Your task to perform on an android device: Go to settings Image 0: 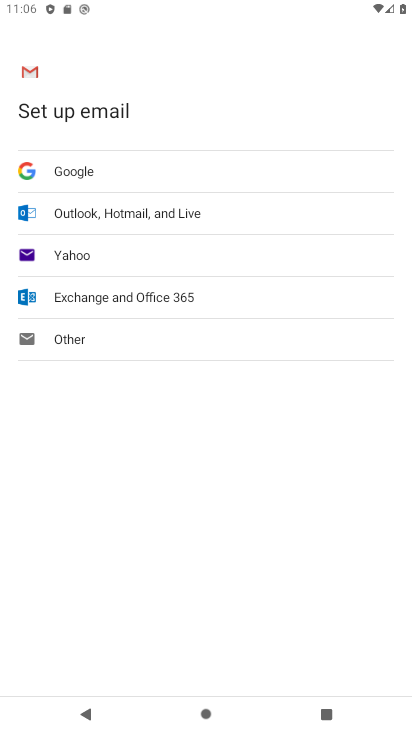
Step 0: press home button
Your task to perform on an android device: Go to settings Image 1: 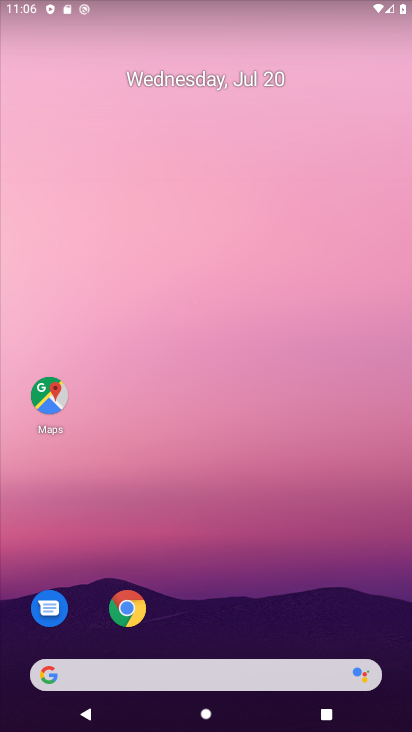
Step 1: drag from (354, 567) to (405, 46)
Your task to perform on an android device: Go to settings Image 2: 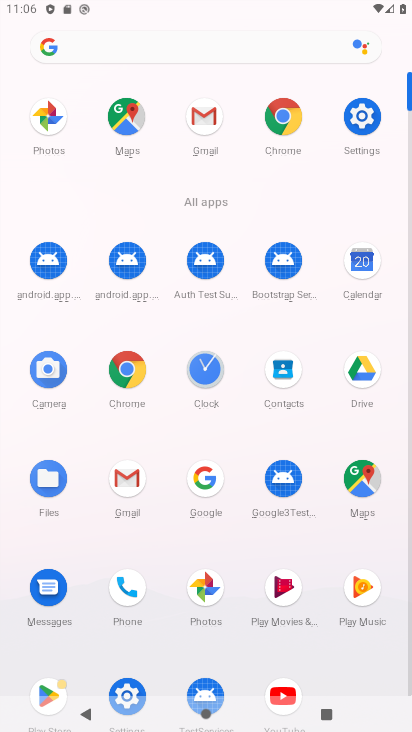
Step 2: click (366, 119)
Your task to perform on an android device: Go to settings Image 3: 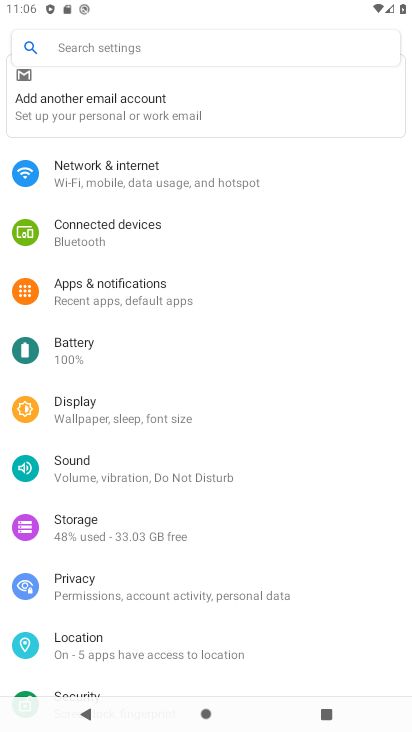
Step 3: task complete